Your task to perform on an android device: open chrome and create a bookmark for the current page Image 0: 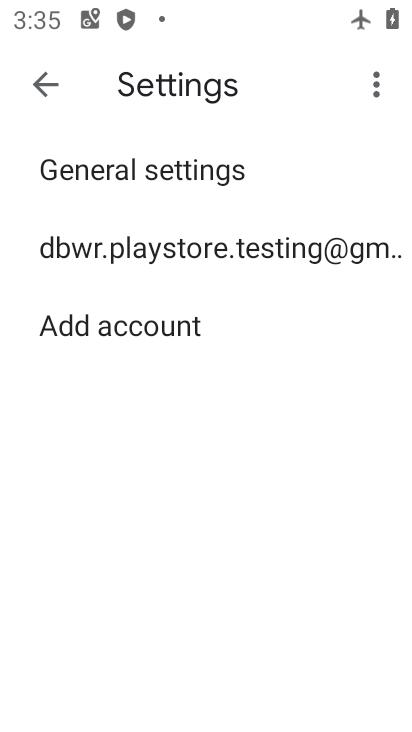
Step 0: click (43, 94)
Your task to perform on an android device: open chrome and create a bookmark for the current page Image 1: 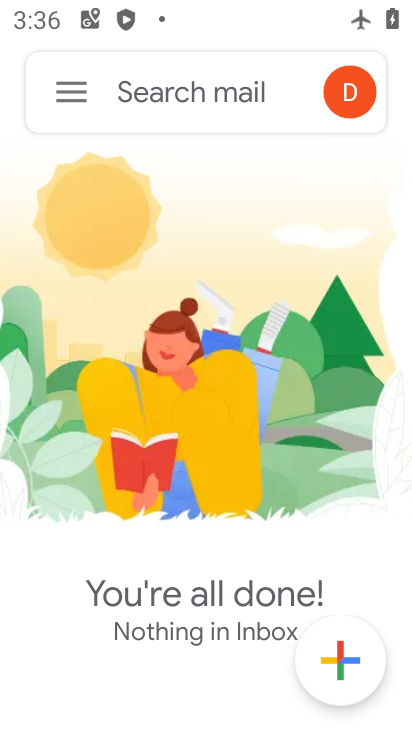
Step 1: click (76, 90)
Your task to perform on an android device: open chrome and create a bookmark for the current page Image 2: 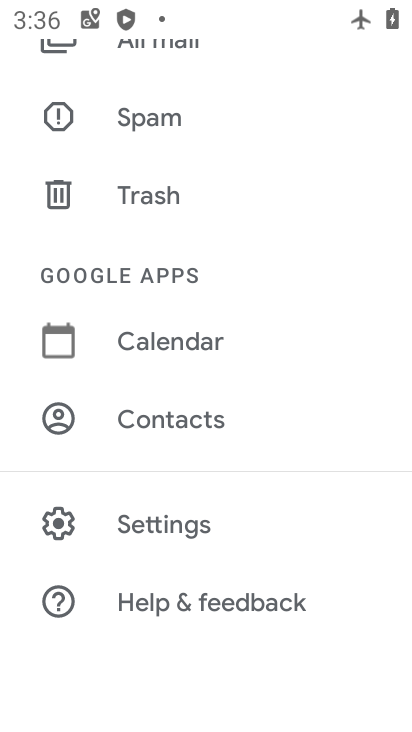
Step 2: press back button
Your task to perform on an android device: open chrome and create a bookmark for the current page Image 3: 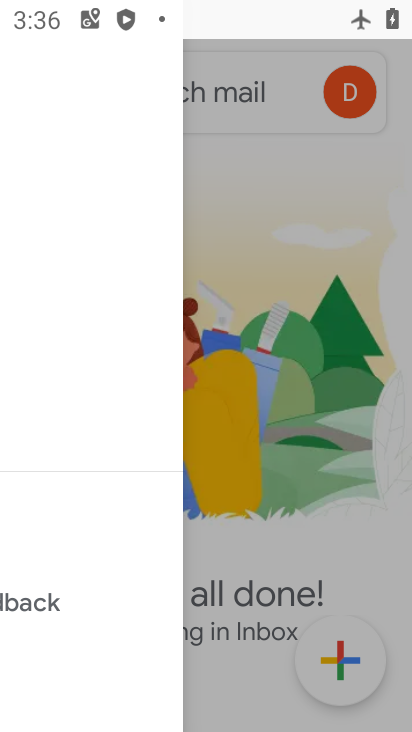
Step 3: press back button
Your task to perform on an android device: open chrome and create a bookmark for the current page Image 4: 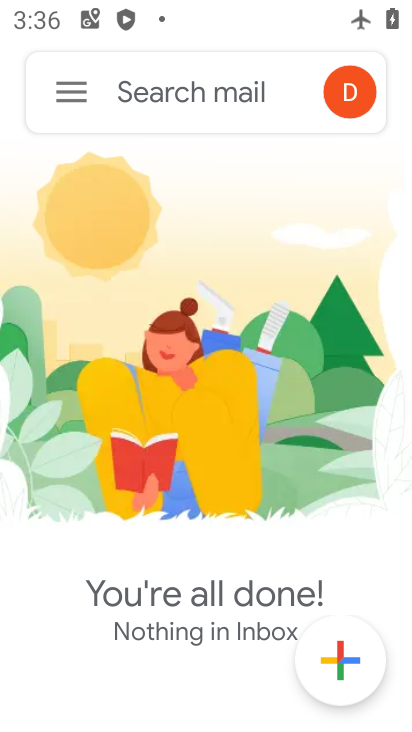
Step 4: press back button
Your task to perform on an android device: open chrome and create a bookmark for the current page Image 5: 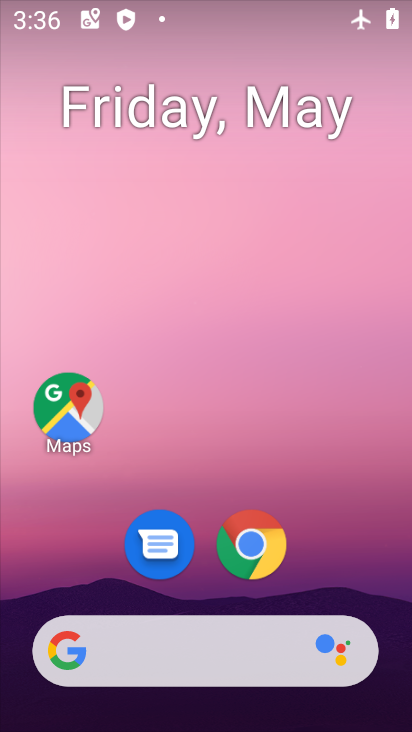
Step 5: drag from (343, 616) to (166, 84)
Your task to perform on an android device: open chrome and create a bookmark for the current page Image 6: 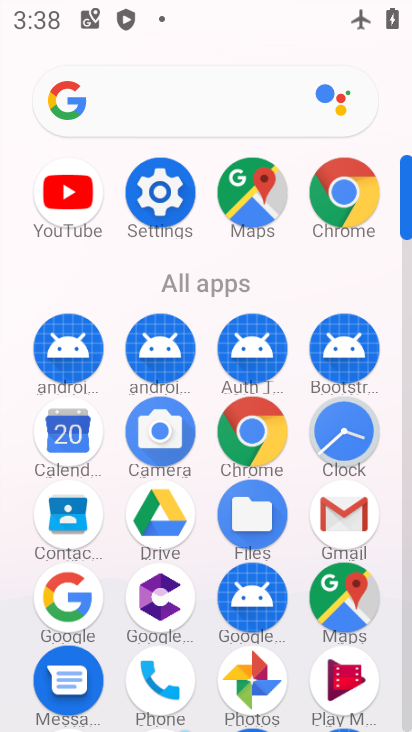
Step 6: click (340, 203)
Your task to perform on an android device: open chrome and create a bookmark for the current page Image 7: 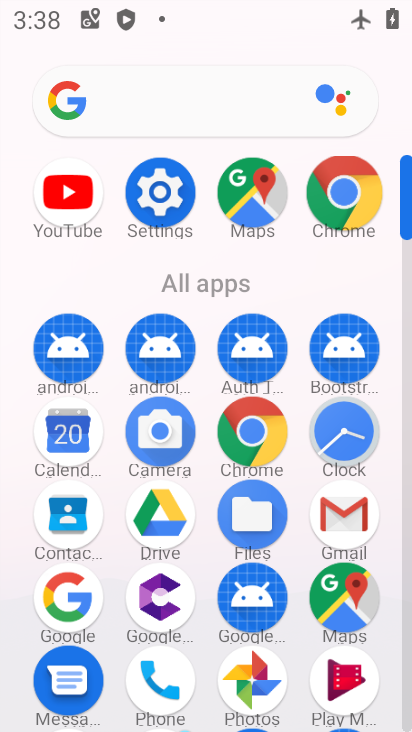
Step 7: click (341, 202)
Your task to perform on an android device: open chrome and create a bookmark for the current page Image 8: 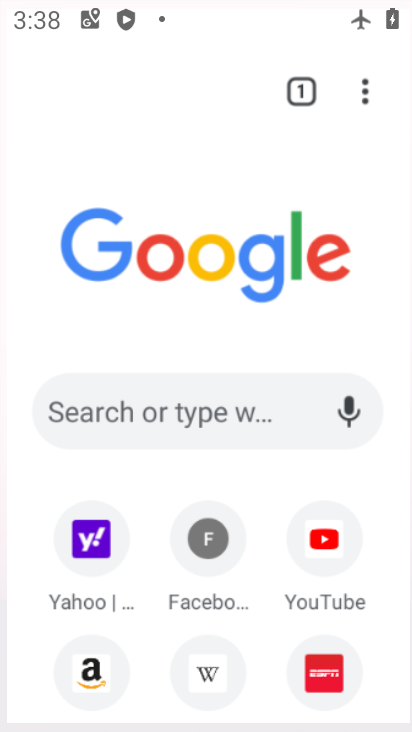
Step 8: click (341, 202)
Your task to perform on an android device: open chrome and create a bookmark for the current page Image 9: 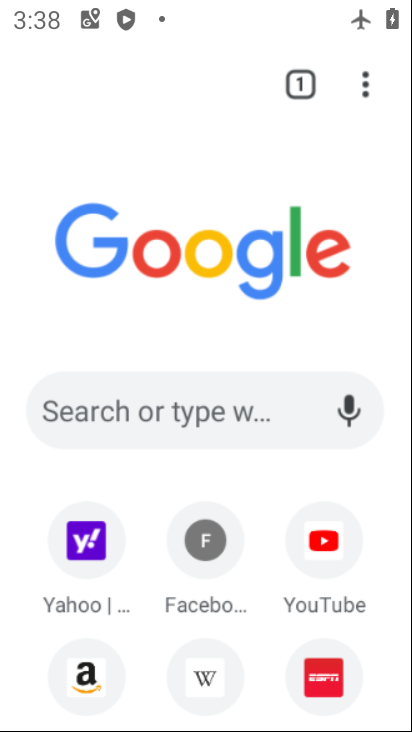
Step 9: click (343, 203)
Your task to perform on an android device: open chrome and create a bookmark for the current page Image 10: 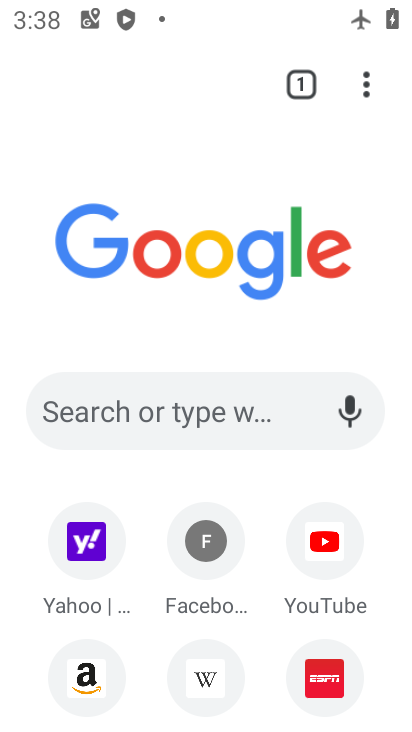
Step 10: click (361, 92)
Your task to perform on an android device: open chrome and create a bookmark for the current page Image 11: 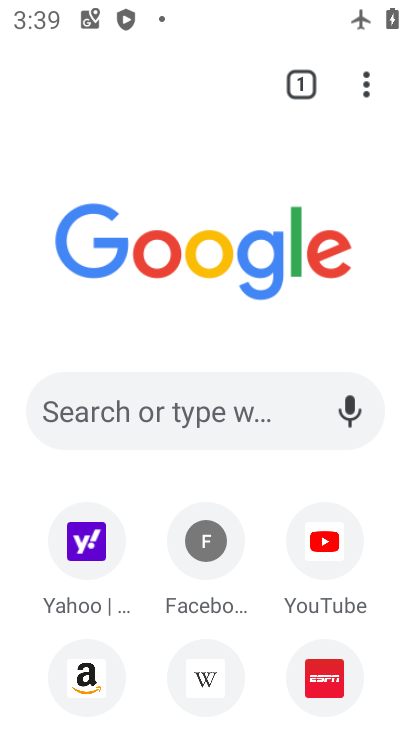
Step 11: drag from (238, 565) to (123, 74)
Your task to perform on an android device: open chrome and create a bookmark for the current page Image 12: 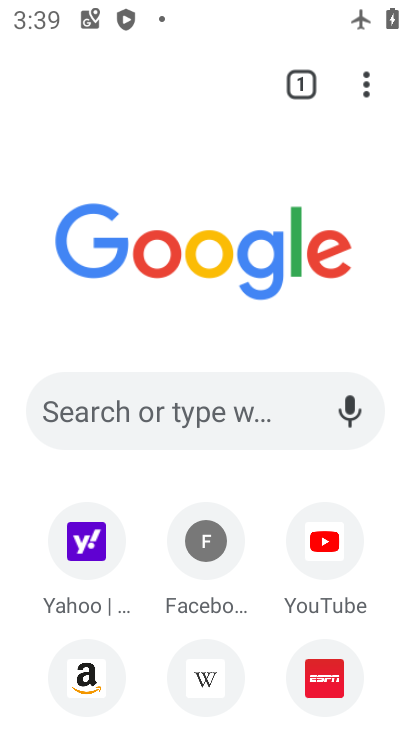
Step 12: drag from (363, 86) to (111, 322)
Your task to perform on an android device: open chrome and create a bookmark for the current page Image 13: 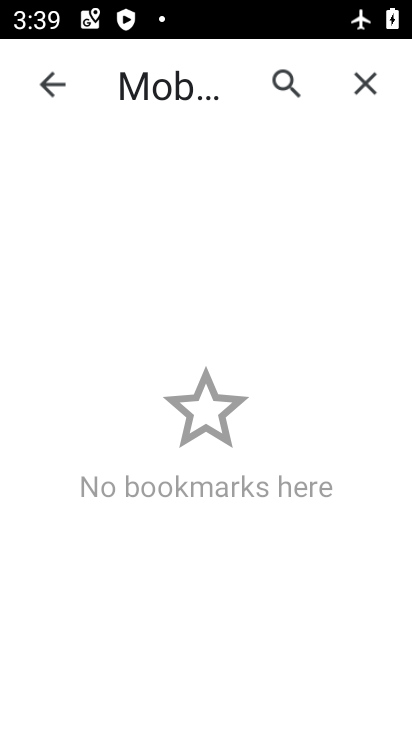
Step 13: click (110, 322)
Your task to perform on an android device: open chrome and create a bookmark for the current page Image 14: 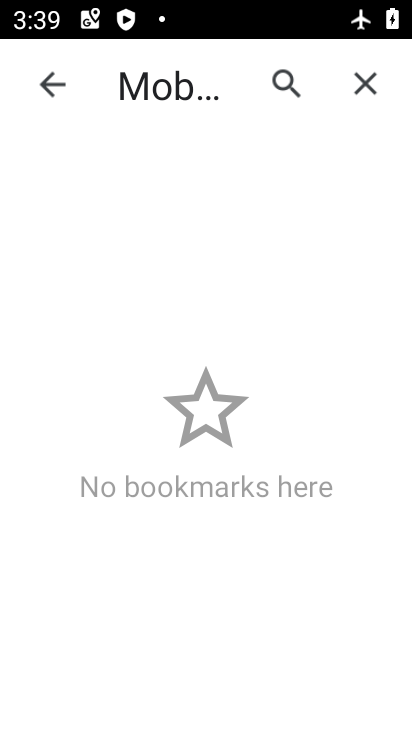
Step 14: click (108, 322)
Your task to perform on an android device: open chrome and create a bookmark for the current page Image 15: 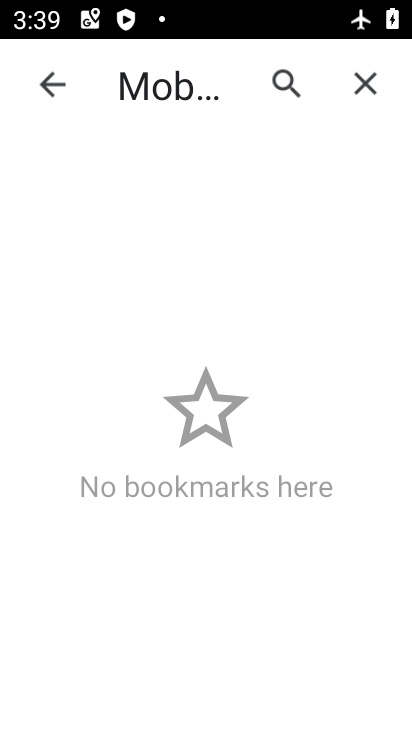
Step 15: task complete